Your task to perform on an android device: Set the phone to "Do not disturb". Image 0: 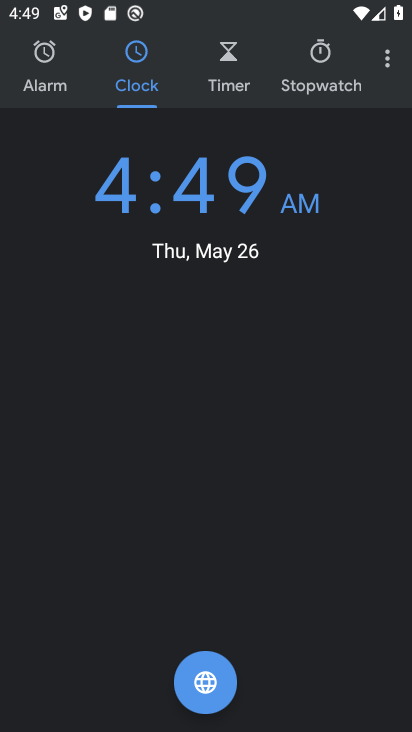
Step 0: drag from (190, 12) to (254, 679)
Your task to perform on an android device: Set the phone to "Do not disturb". Image 1: 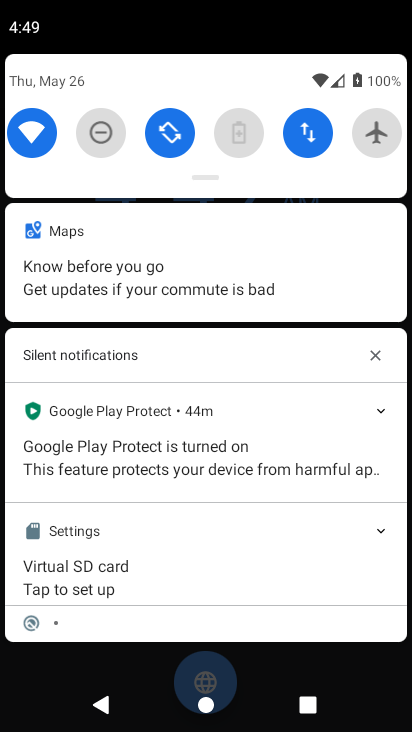
Step 1: click (92, 119)
Your task to perform on an android device: Set the phone to "Do not disturb". Image 2: 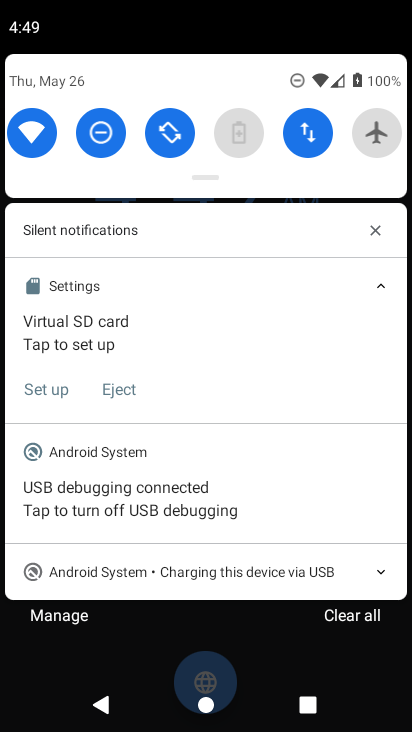
Step 2: task complete